Your task to perform on an android device: Go to Google maps Image 0: 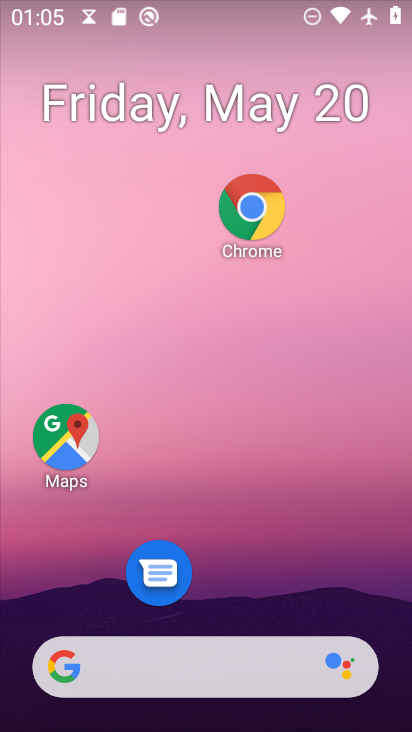
Step 0: click (51, 454)
Your task to perform on an android device: Go to Google maps Image 1: 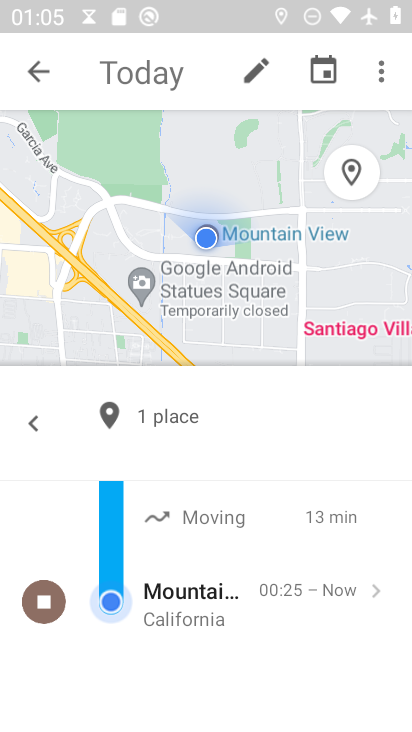
Step 1: click (44, 74)
Your task to perform on an android device: Go to Google maps Image 2: 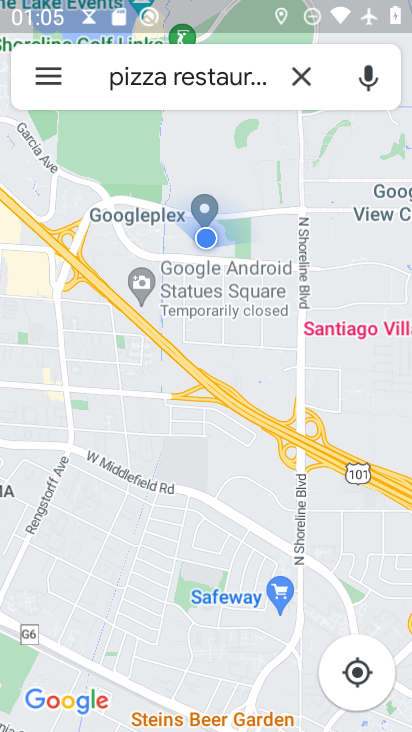
Step 2: task complete